Your task to perform on an android device: Play the last video I watched on Youtube Image 0: 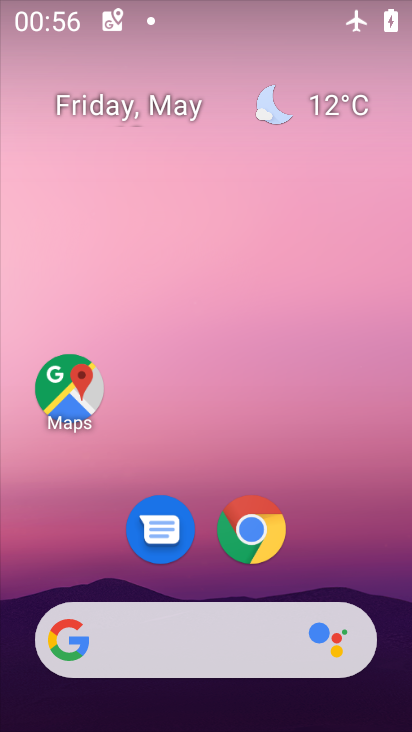
Step 0: drag from (323, 500) to (293, 186)
Your task to perform on an android device: Play the last video I watched on Youtube Image 1: 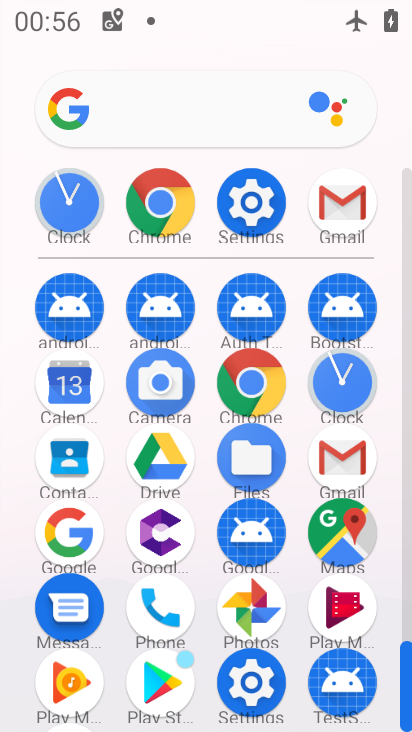
Step 1: drag from (211, 596) to (206, 209)
Your task to perform on an android device: Play the last video I watched on Youtube Image 2: 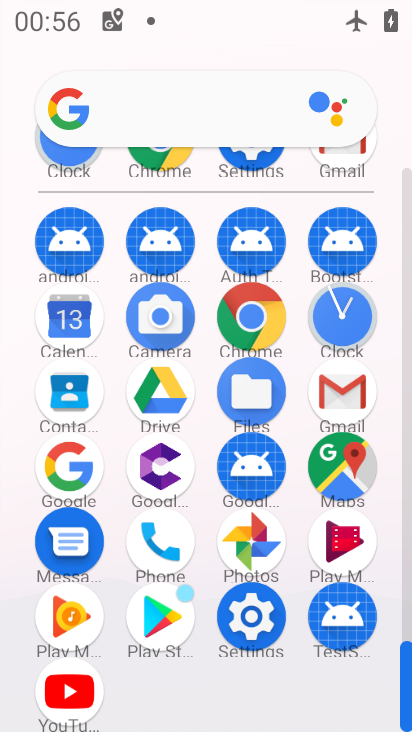
Step 2: click (60, 684)
Your task to perform on an android device: Play the last video I watched on Youtube Image 3: 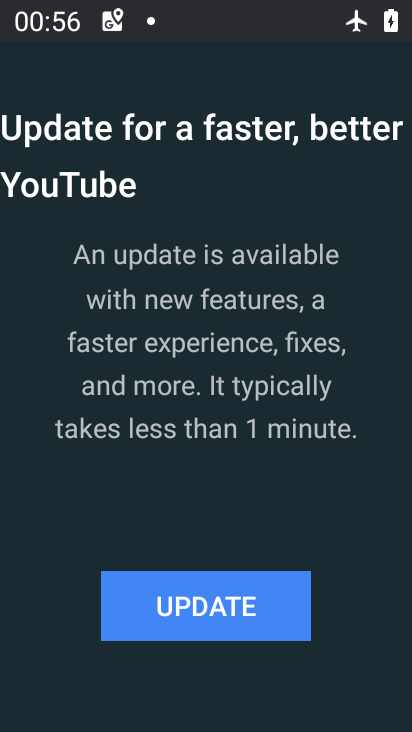
Step 3: task complete